Your task to perform on an android device: check the backup settings in the google photos Image 0: 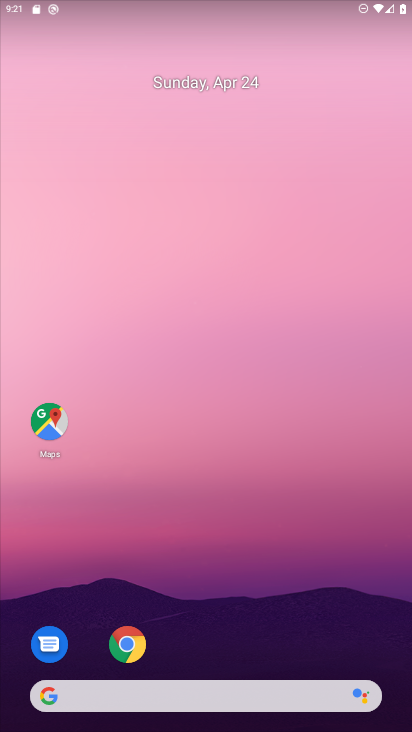
Step 0: drag from (196, 675) to (152, 105)
Your task to perform on an android device: check the backup settings in the google photos Image 1: 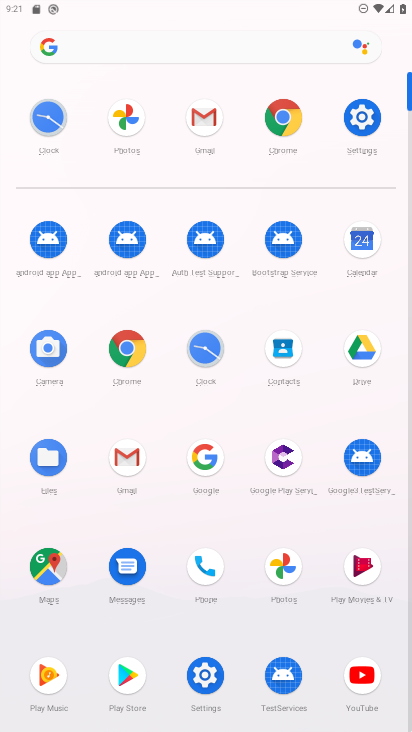
Step 1: click (281, 572)
Your task to perform on an android device: check the backup settings in the google photos Image 2: 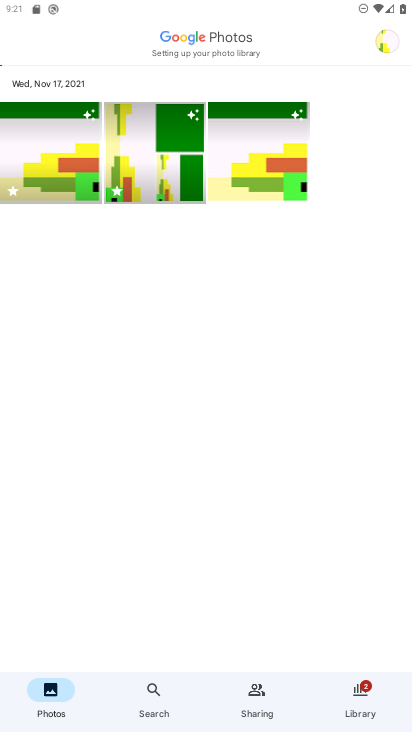
Step 2: click (379, 37)
Your task to perform on an android device: check the backup settings in the google photos Image 3: 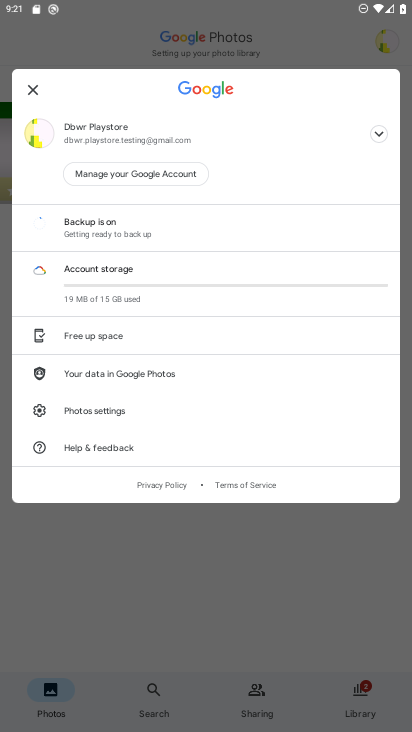
Step 3: drag from (378, 49) to (81, 414)
Your task to perform on an android device: check the backup settings in the google photos Image 4: 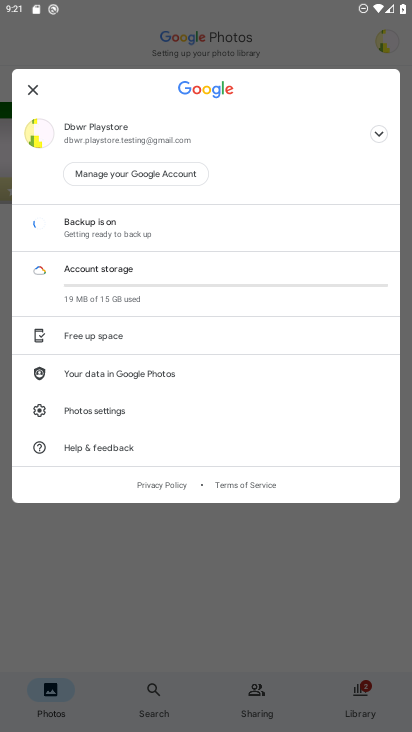
Step 4: click (79, 409)
Your task to perform on an android device: check the backup settings in the google photos Image 5: 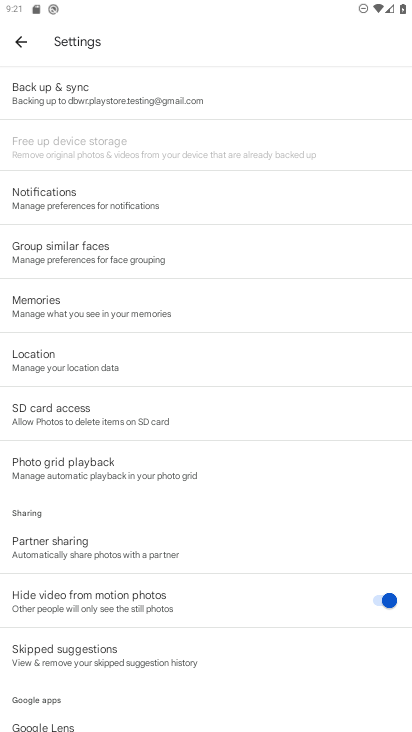
Step 5: click (67, 77)
Your task to perform on an android device: check the backup settings in the google photos Image 6: 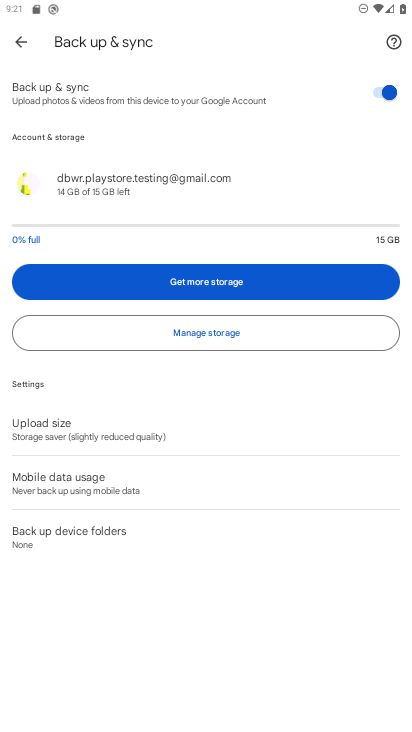
Step 6: task complete